Your task to perform on an android device: check out phone information Image 0: 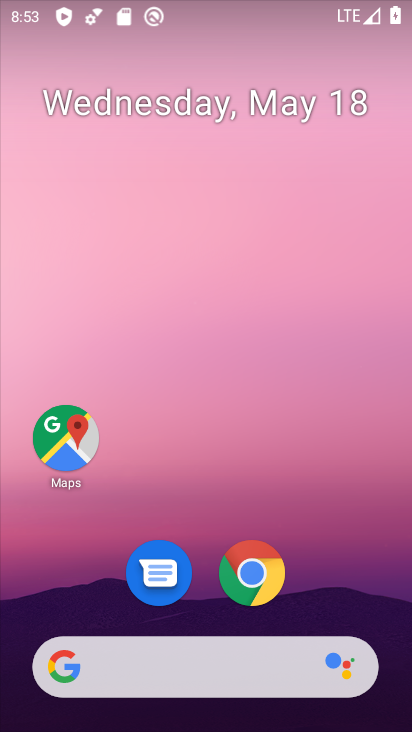
Step 0: drag from (216, 667) to (219, 209)
Your task to perform on an android device: check out phone information Image 1: 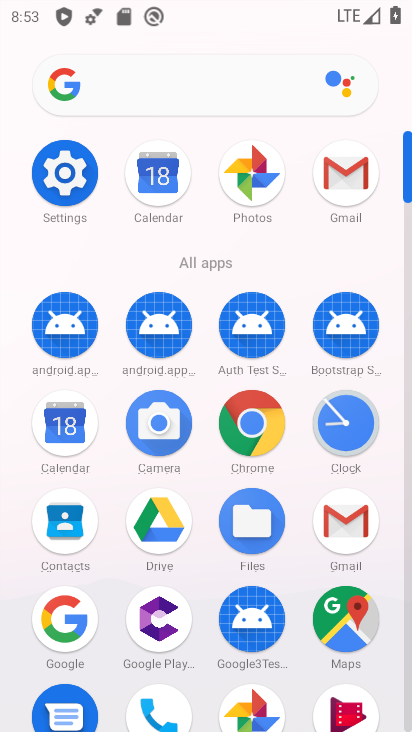
Step 1: drag from (217, 578) to (217, 108)
Your task to perform on an android device: check out phone information Image 2: 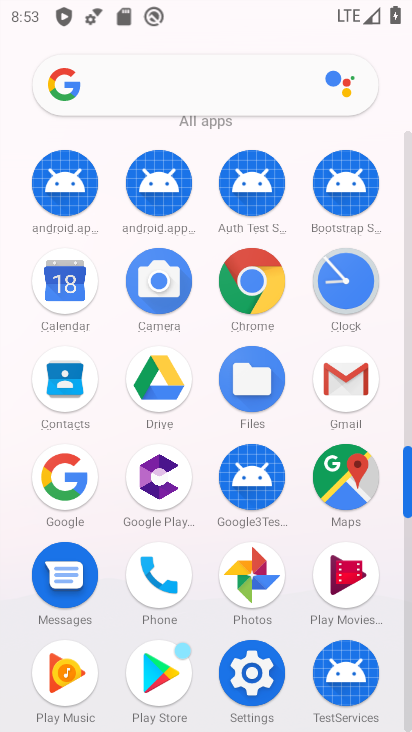
Step 2: click (247, 670)
Your task to perform on an android device: check out phone information Image 3: 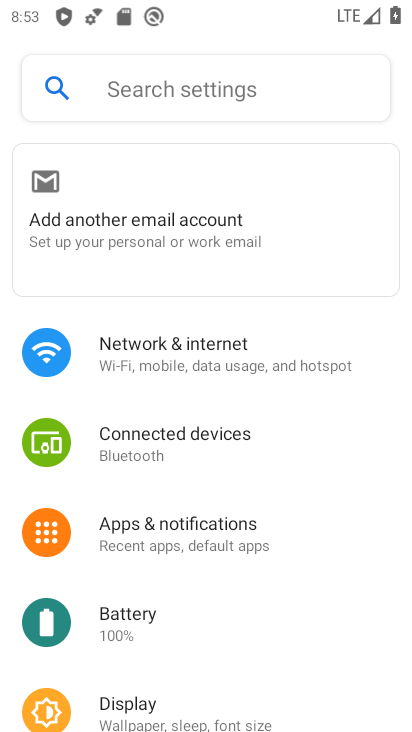
Step 3: drag from (275, 673) to (266, 2)
Your task to perform on an android device: check out phone information Image 4: 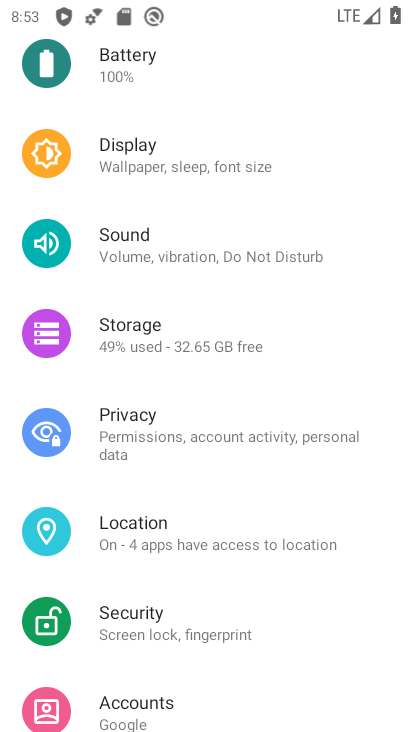
Step 4: drag from (272, 691) to (329, 278)
Your task to perform on an android device: check out phone information Image 5: 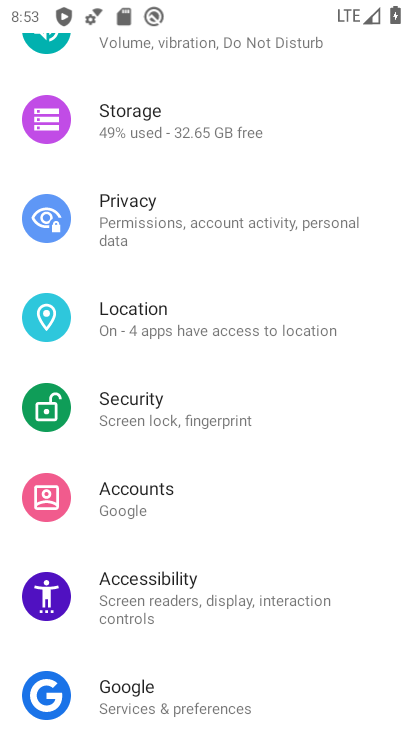
Step 5: drag from (246, 644) to (284, 265)
Your task to perform on an android device: check out phone information Image 6: 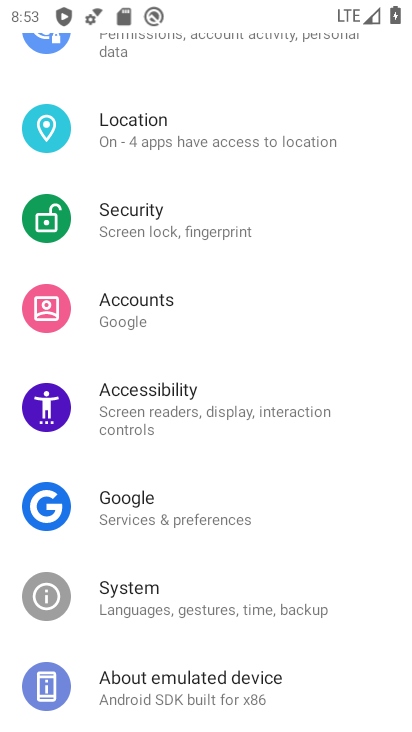
Step 6: drag from (253, 647) to (310, 220)
Your task to perform on an android device: check out phone information Image 7: 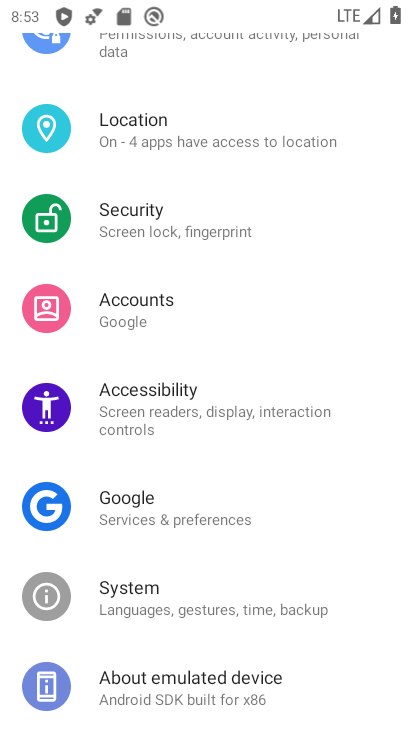
Step 7: click (239, 692)
Your task to perform on an android device: check out phone information Image 8: 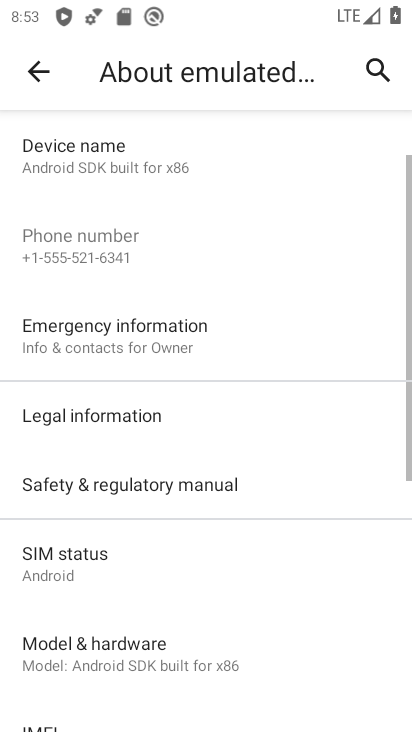
Step 8: task complete